Your task to perform on an android device: Go to Maps Image 0: 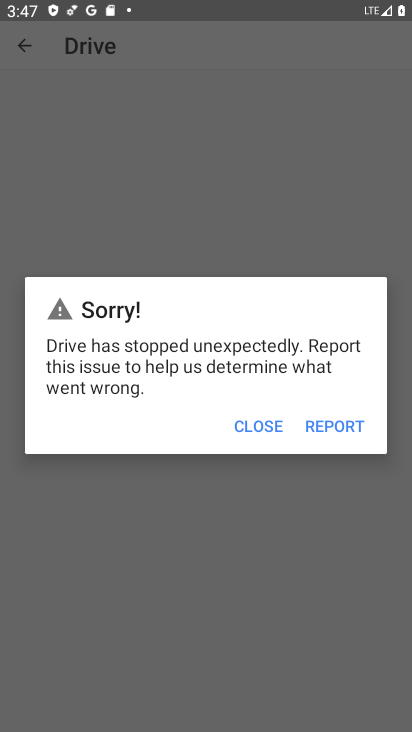
Step 0: drag from (277, 676) to (255, 159)
Your task to perform on an android device: Go to Maps Image 1: 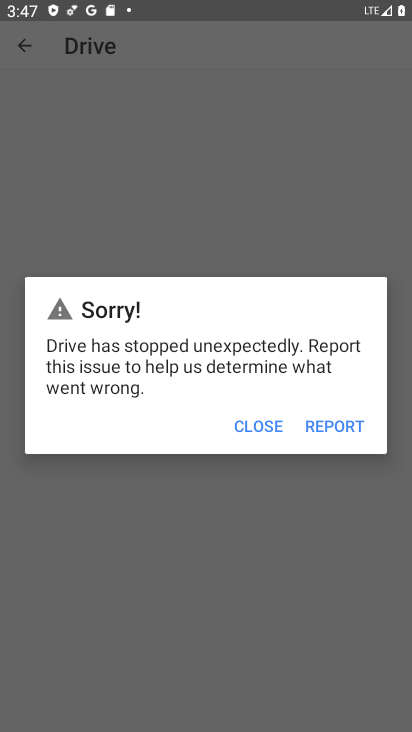
Step 1: click (256, 423)
Your task to perform on an android device: Go to Maps Image 2: 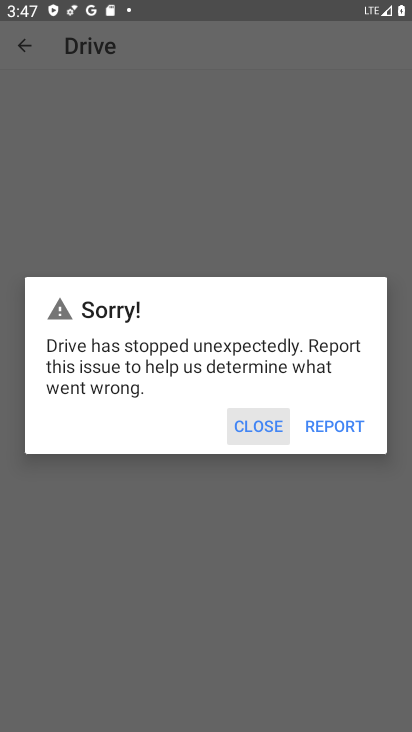
Step 2: click (257, 424)
Your task to perform on an android device: Go to Maps Image 3: 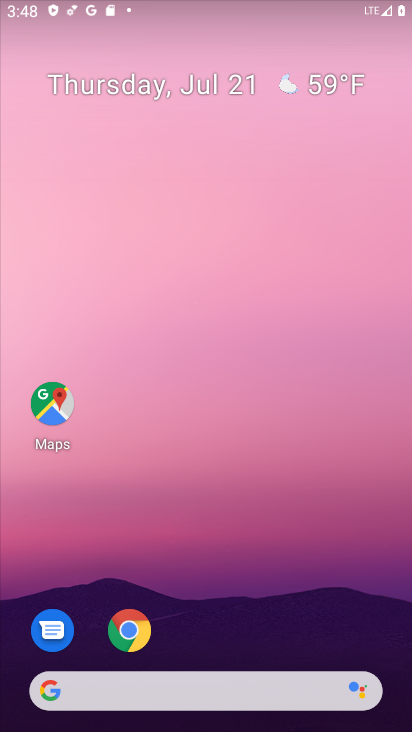
Step 3: drag from (219, 356) to (183, 78)
Your task to perform on an android device: Go to Maps Image 4: 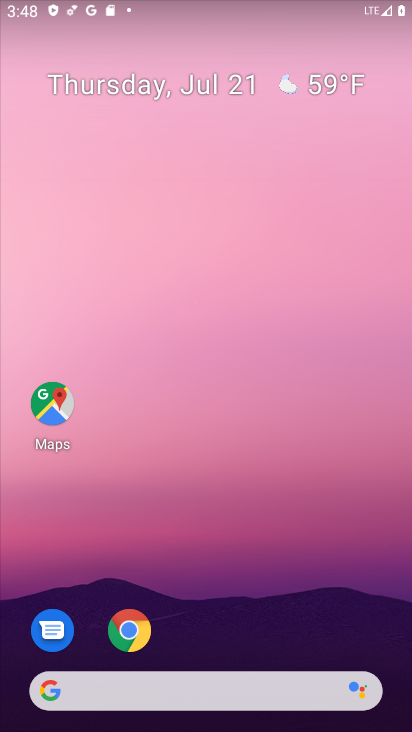
Step 4: drag from (200, 425) to (165, 93)
Your task to perform on an android device: Go to Maps Image 5: 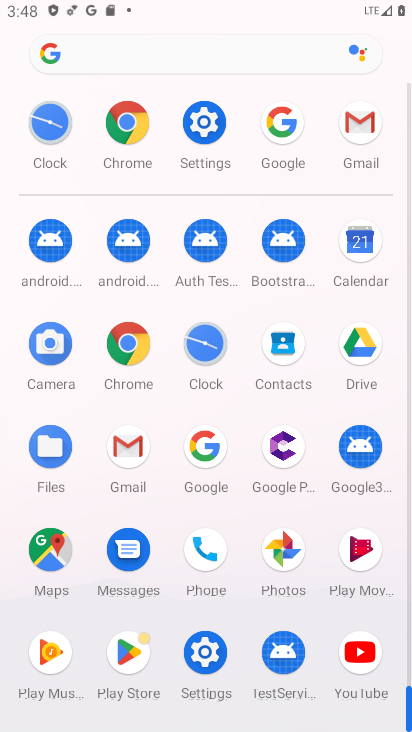
Step 5: click (48, 550)
Your task to perform on an android device: Go to Maps Image 6: 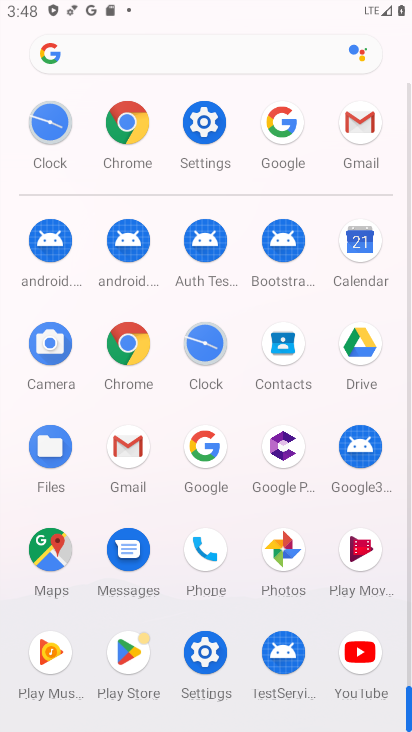
Step 6: click (52, 548)
Your task to perform on an android device: Go to Maps Image 7: 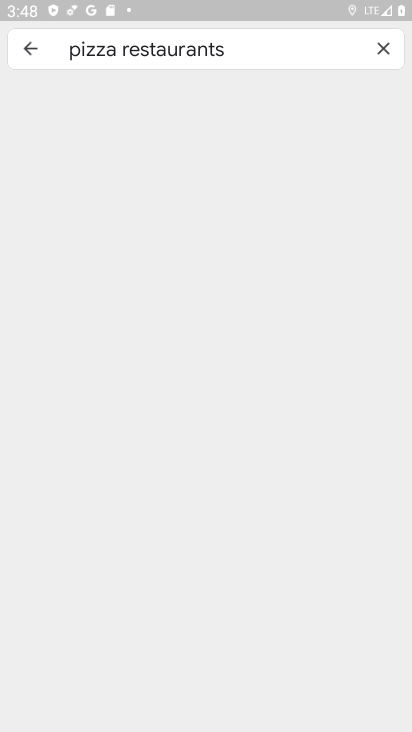
Step 7: click (50, 539)
Your task to perform on an android device: Go to Maps Image 8: 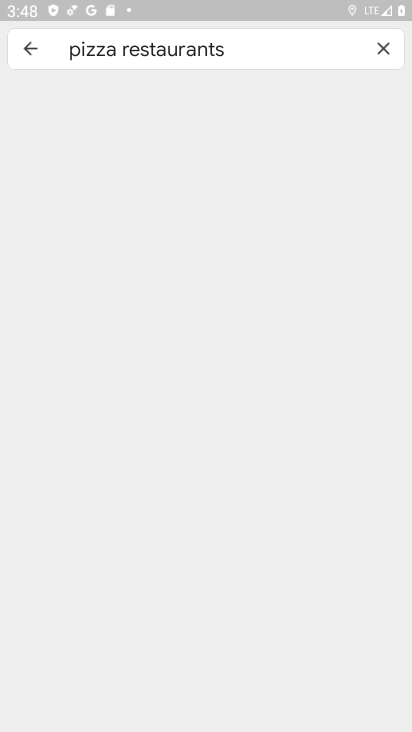
Step 8: click (369, 48)
Your task to perform on an android device: Go to Maps Image 9: 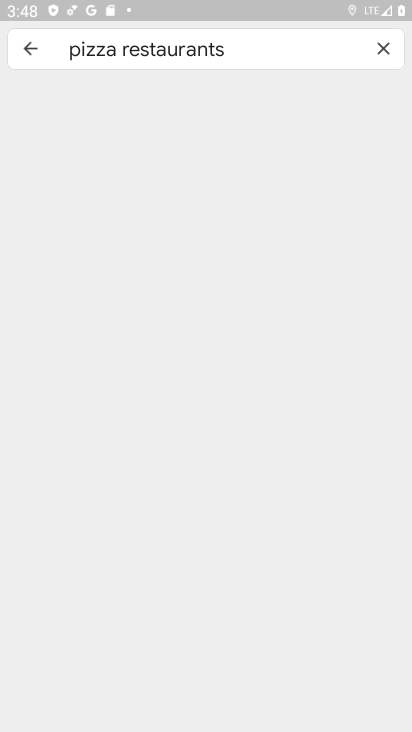
Step 9: click (370, 48)
Your task to perform on an android device: Go to Maps Image 10: 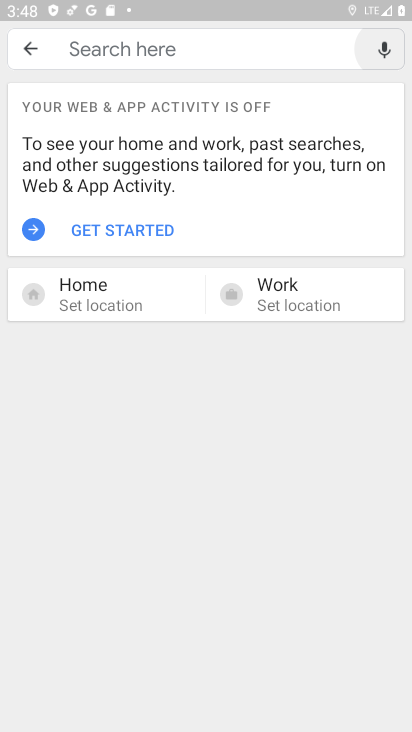
Step 10: click (34, 45)
Your task to perform on an android device: Go to Maps Image 11: 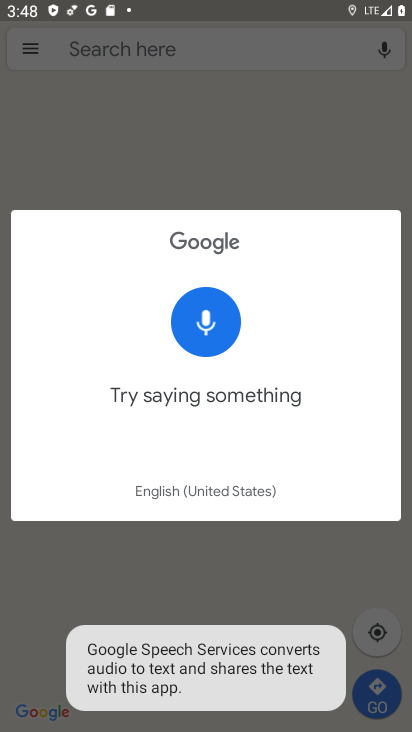
Step 11: click (174, 106)
Your task to perform on an android device: Go to Maps Image 12: 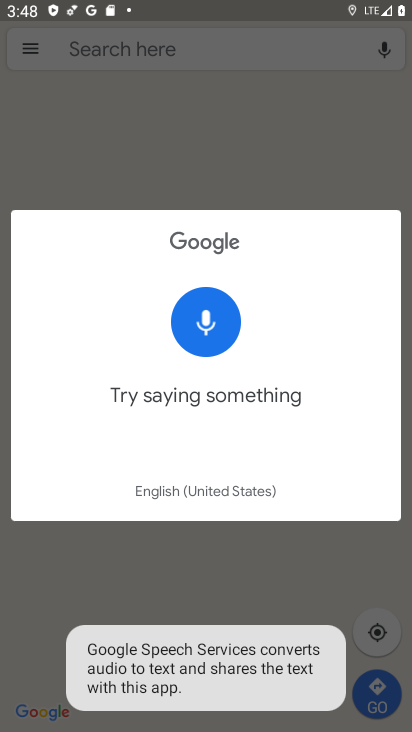
Step 12: click (175, 109)
Your task to perform on an android device: Go to Maps Image 13: 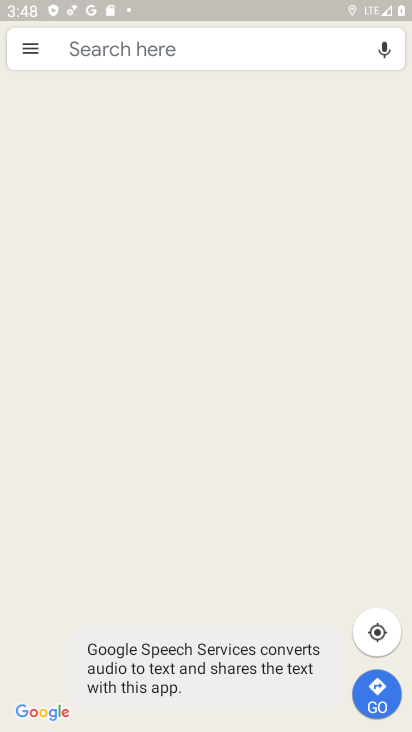
Step 13: click (199, 85)
Your task to perform on an android device: Go to Maps Image 14: 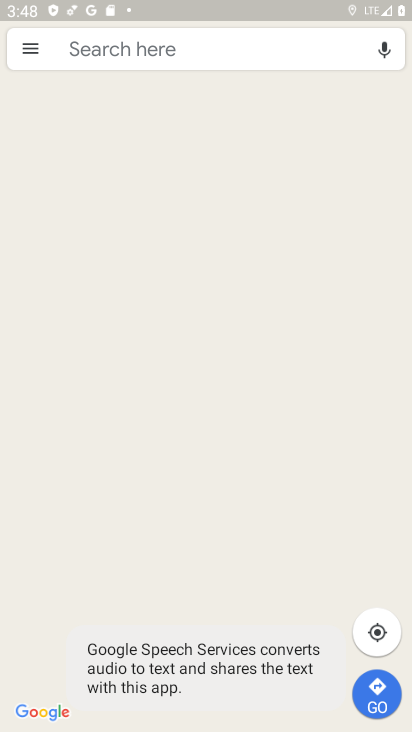
Step 14: click (208, 75)
Your task to perform on an android device: Go to Maps Image 15: 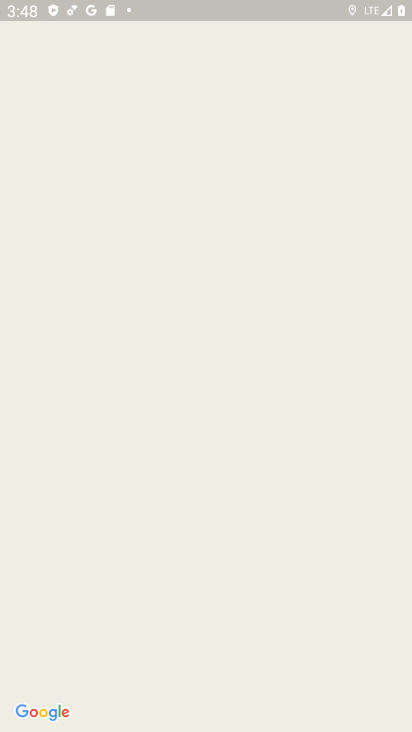
Step 15: task complete